Your task to perform on an android device: check storage Image 0: 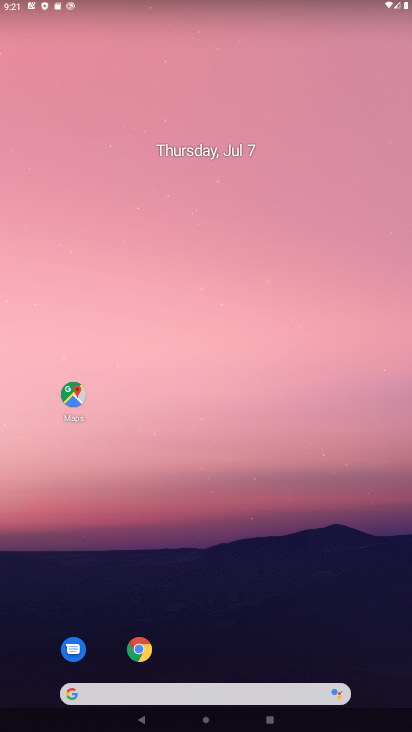
Step 0: drag from (221, 702) to (169, 158)
Your task to perform on an android device: check storage Image 1: 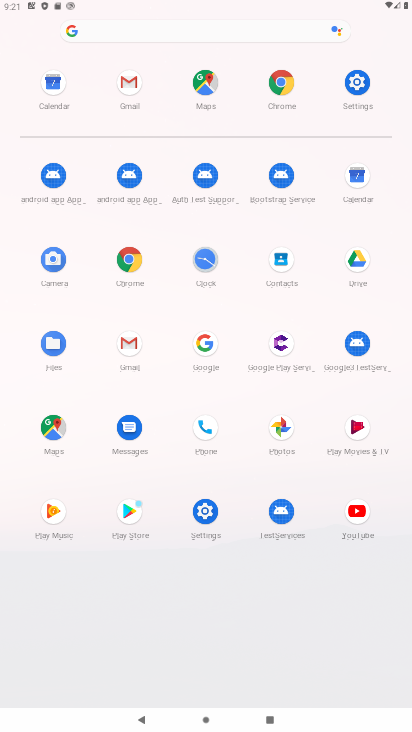
Step 1: click (345, 84)
Your task to perform on an android device: check storage Image 2: 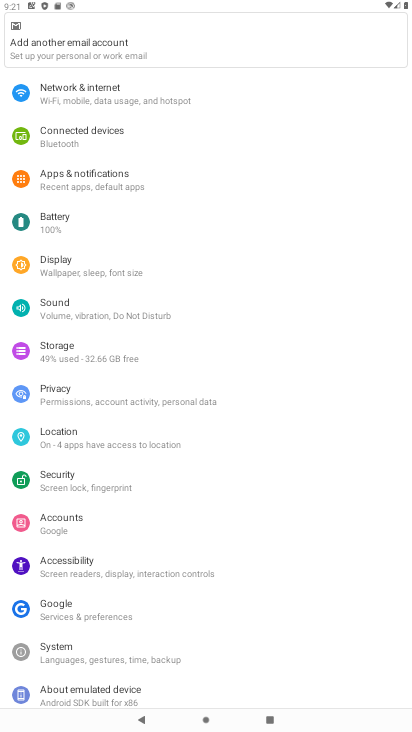
Step 2: click (67, 358)
Your task to perform on an android device: check storage Image 3: 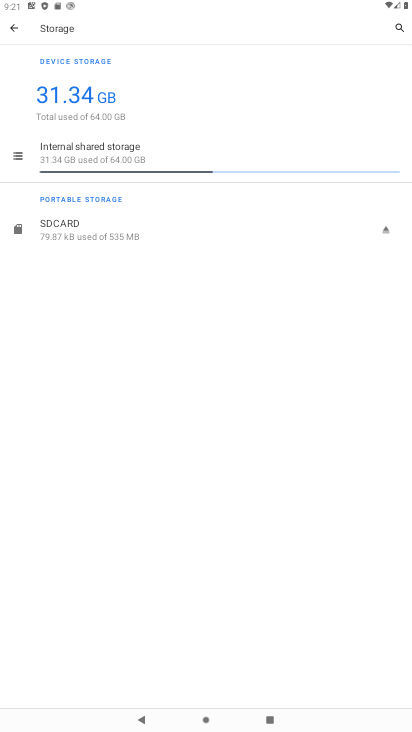
Step 3: task complete